Your task to perform on an android device: Search for lg ultragear on target, select the first entry, and add it to the cart. Image 0: 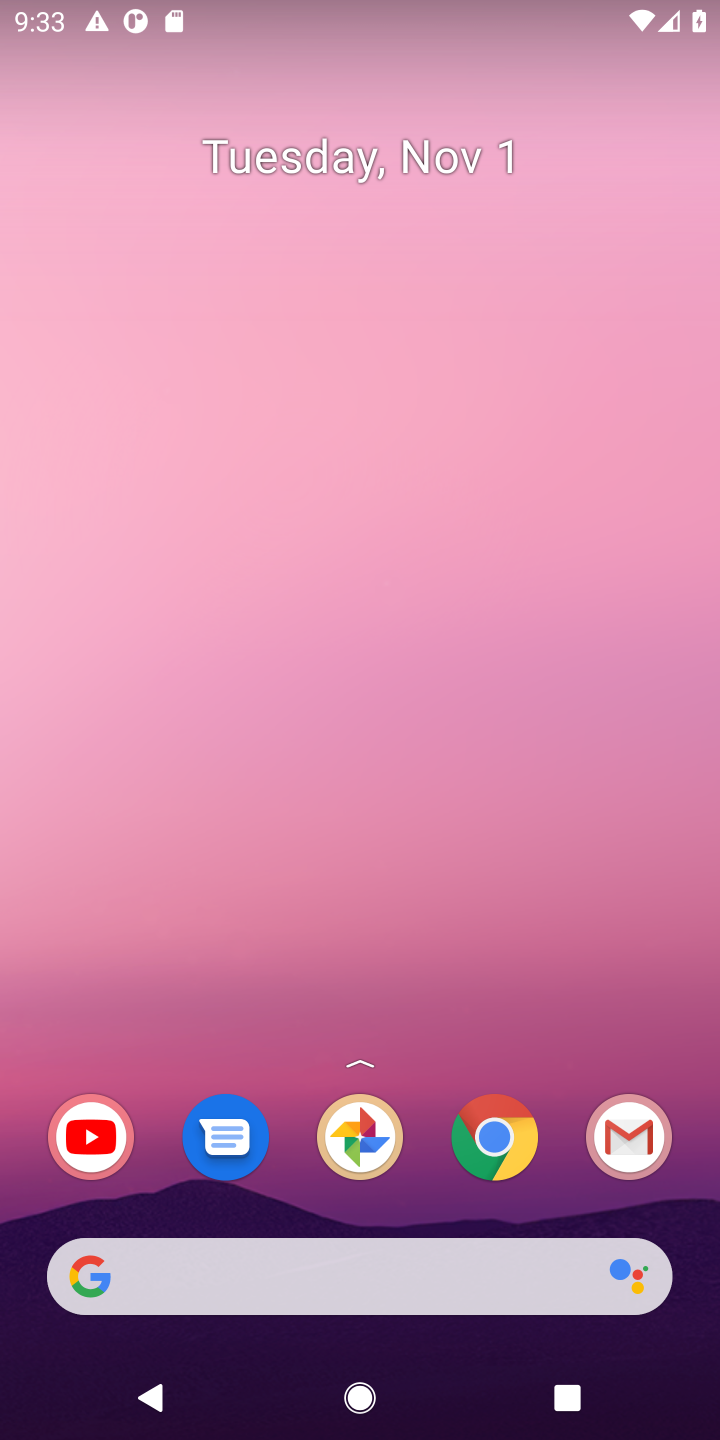
Step 0: click (356, 1276)
Your task to perform on an android device: Search for lg ultragear on target, select the first entry, and add it to the cart. Image 1: 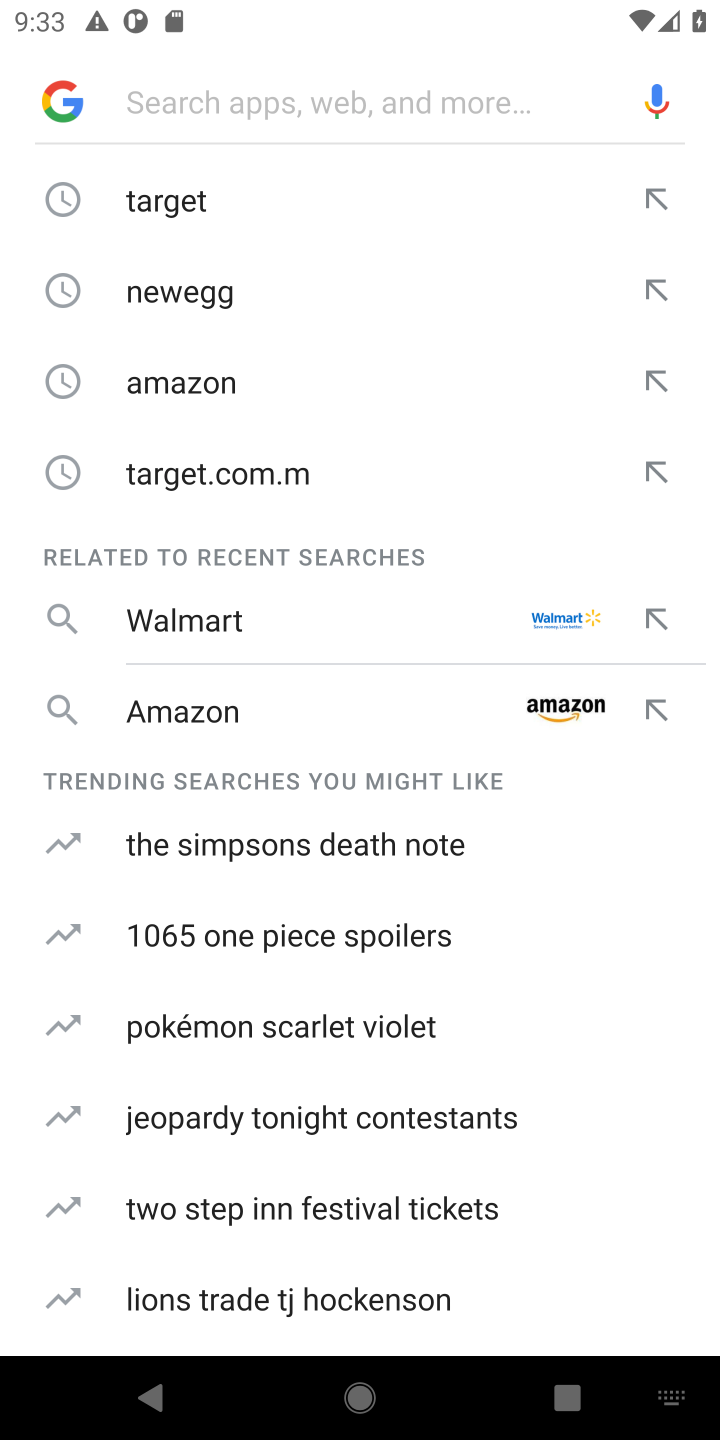
Step 1: click (181, 216)
Your task to perform on an android device: Search for lg ultragear on target, select the first entry, and add it to the cart. Image 2: 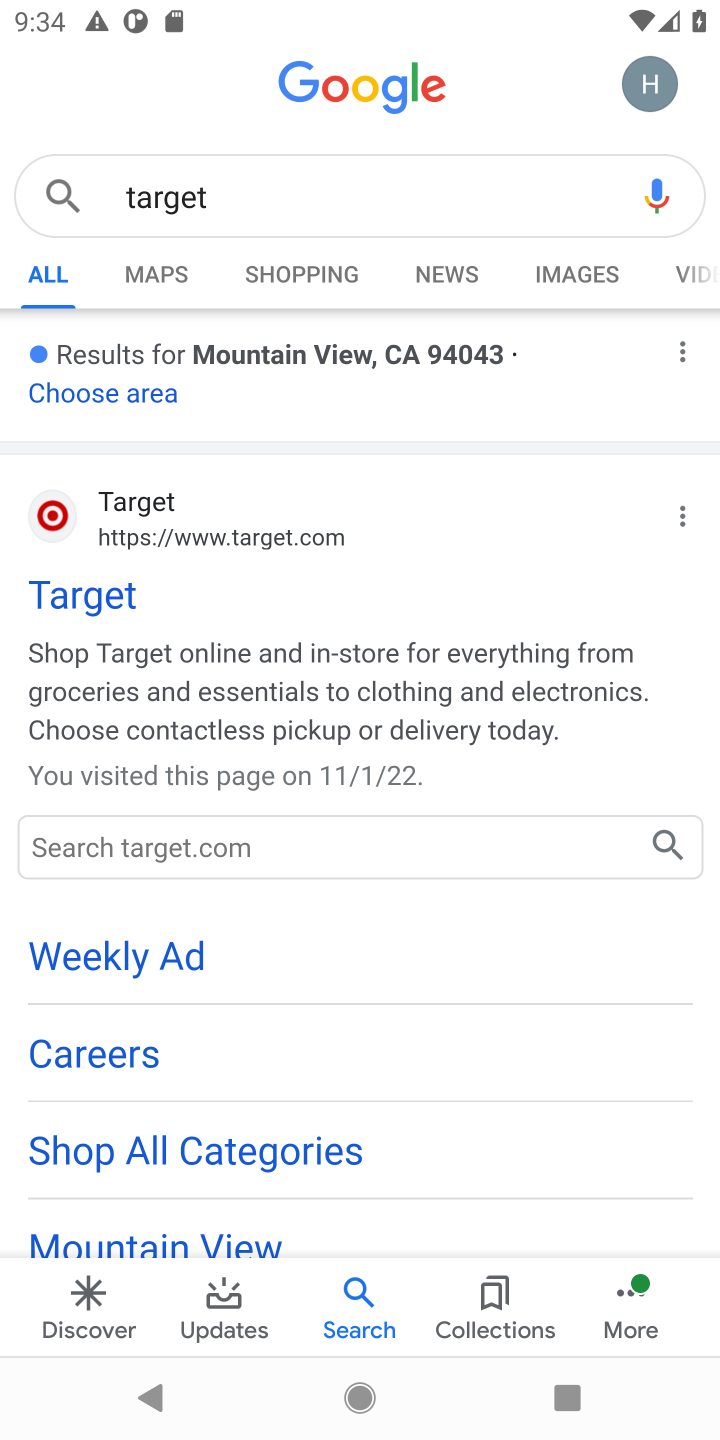
Step 2: click (135, 505)
Your task to perform on an android device: Search for lg ultragear on target, select the first entry, and add it to the cart. Image 3: 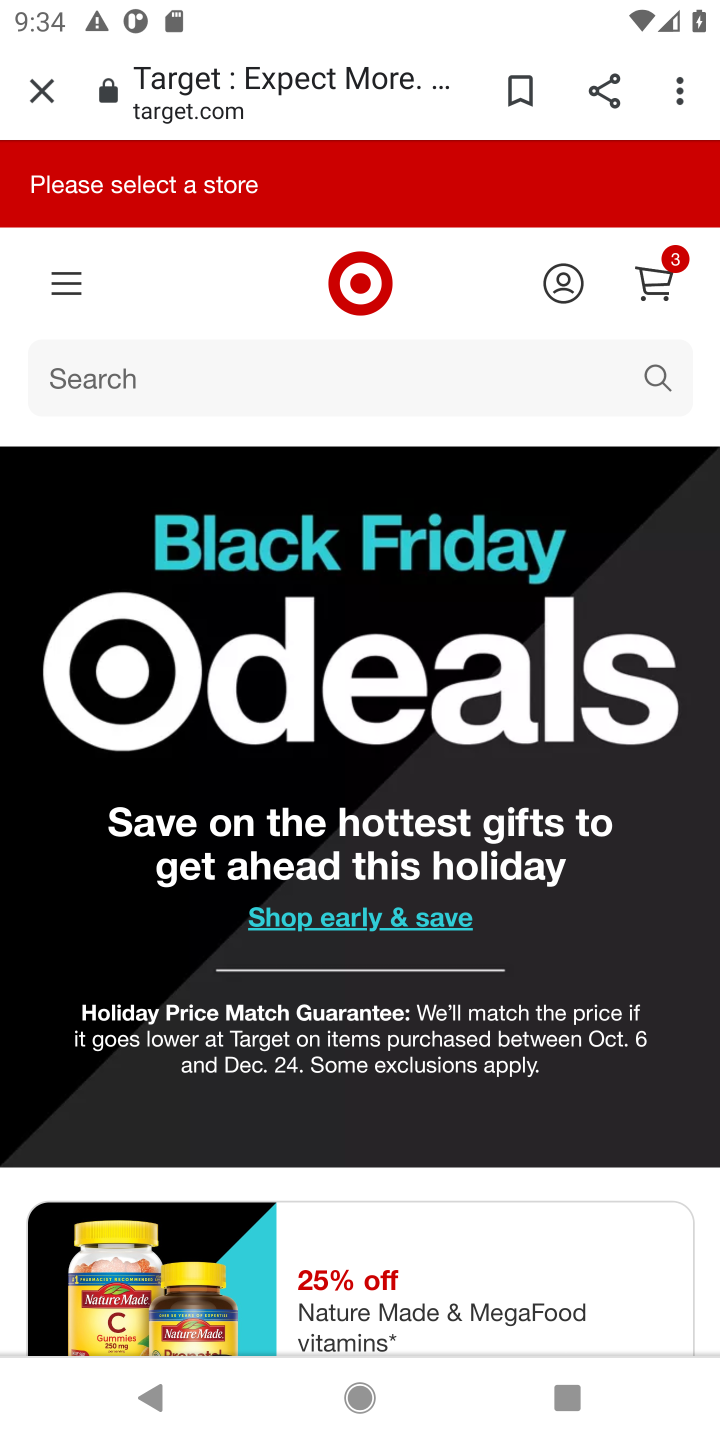
Step 3: click (277, 378)
Your task to perform on an android device: Search for lg ultragear on target, select the first entry, and add it to the cart. Image 4: 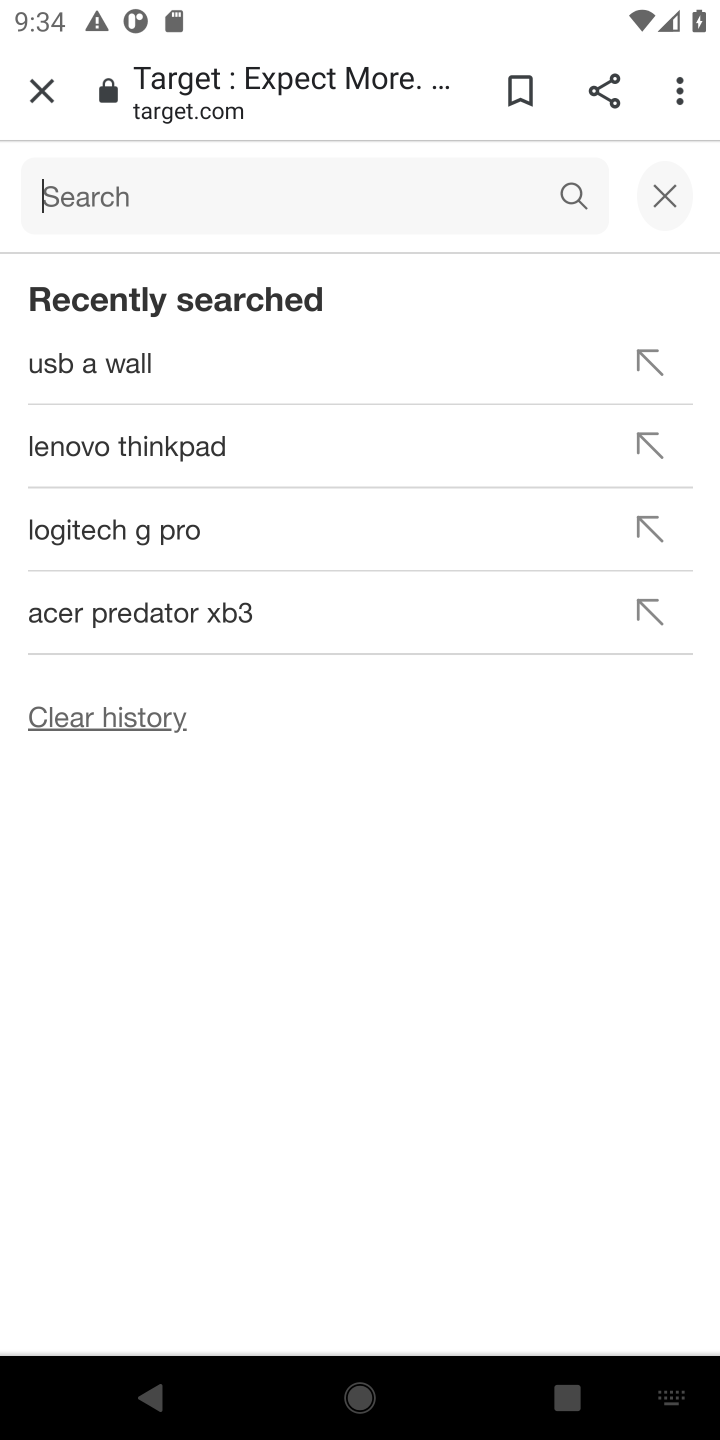
Step 4: type "lg ultragear"
Your task to perform on an android device: Search for lg ultragear on target, select the first entry, and add it to the cart. Image 5: 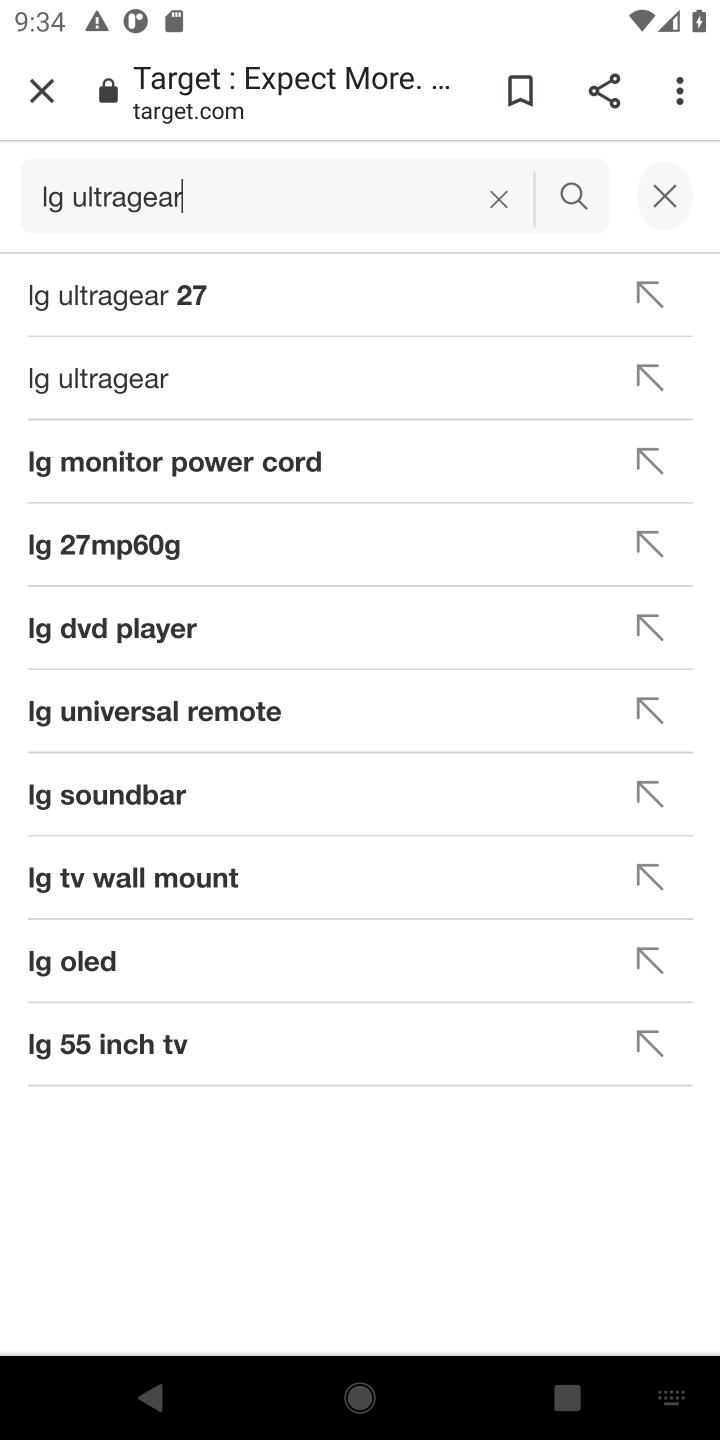
Step 5: click (116, 364)
Your task to perform on an android device: Search for lg ultragear on target, select the first entry, and add it to the cart. Image 6: 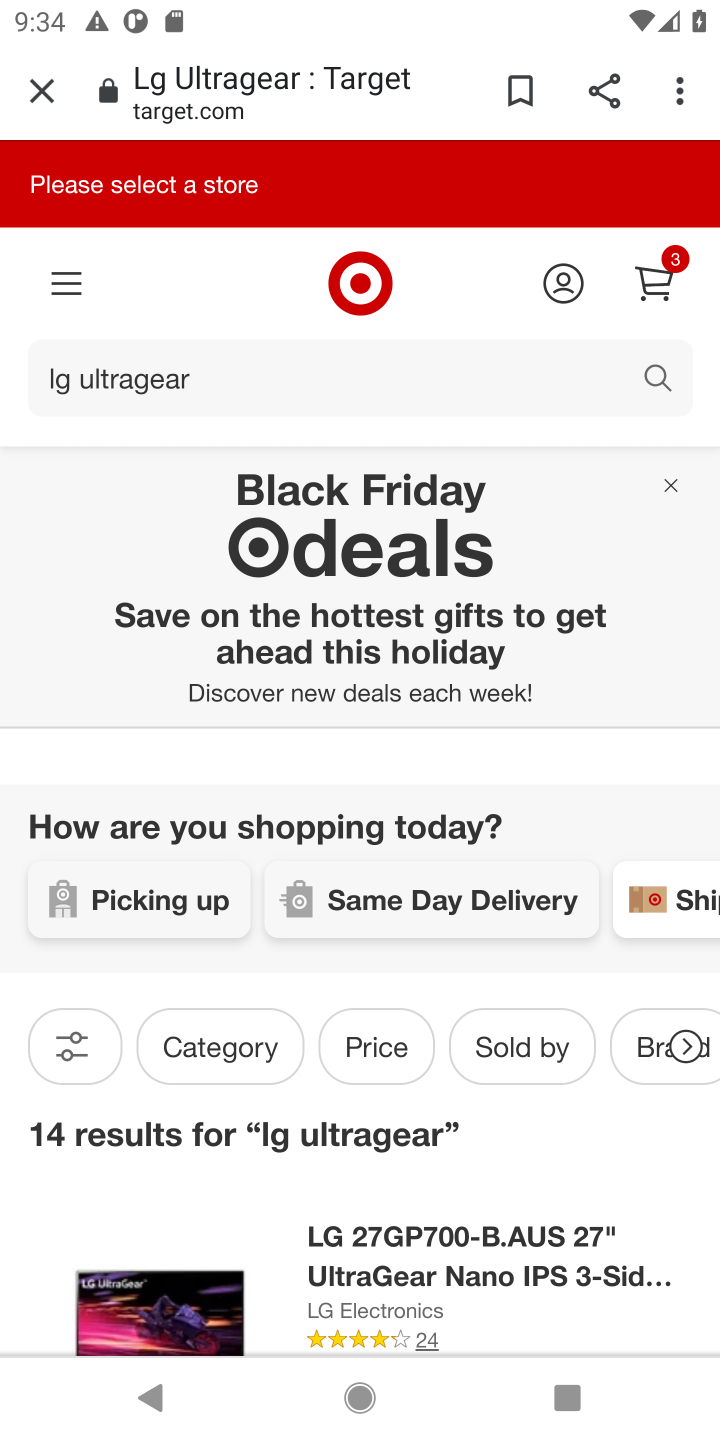
Step 6: drag from (276, 1041) to (323, 600)
Your task to perform on an android device: Search for lg ultragear on target, select the first entry, and add it to the cart. Image 7: 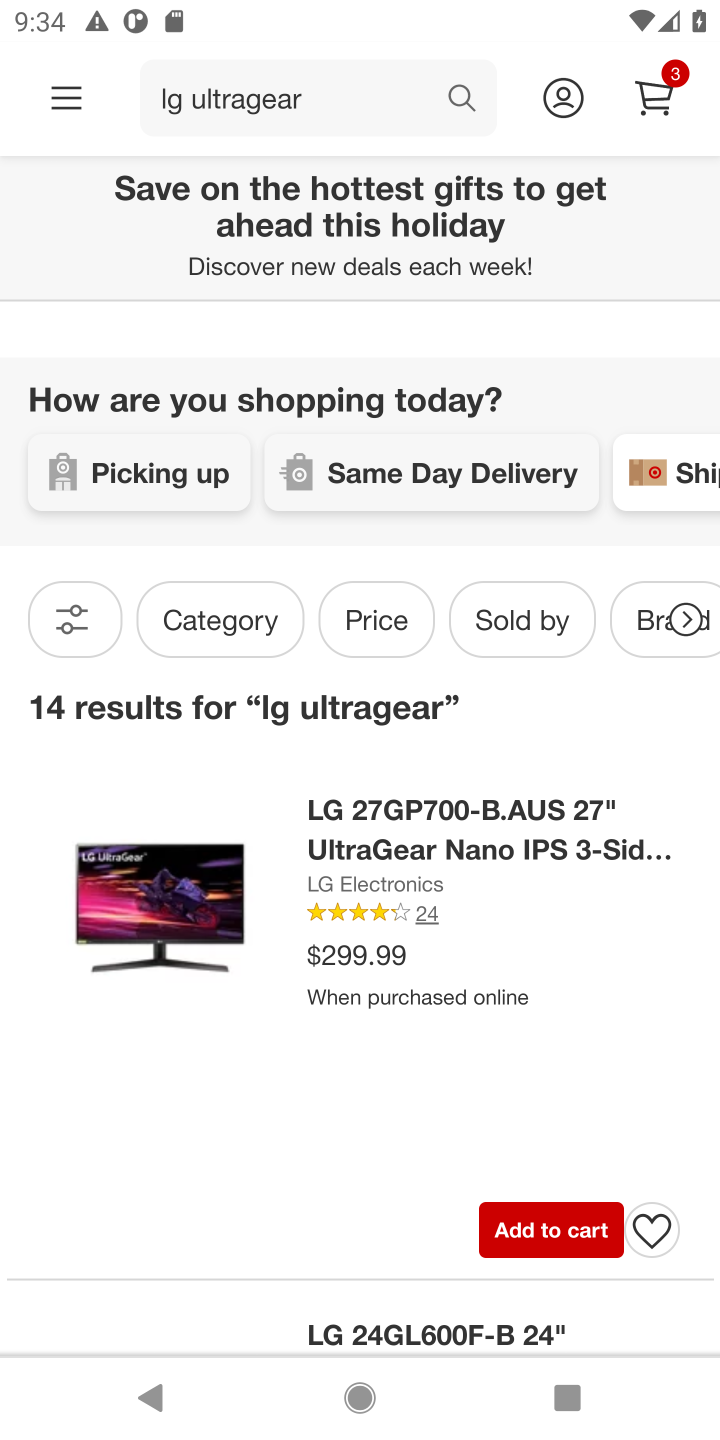
Step 7: click (315, 1260)
Your task to perform on an android device: Search for lg ultragear on target, select the first entry, and add it to the cart. Image 8: 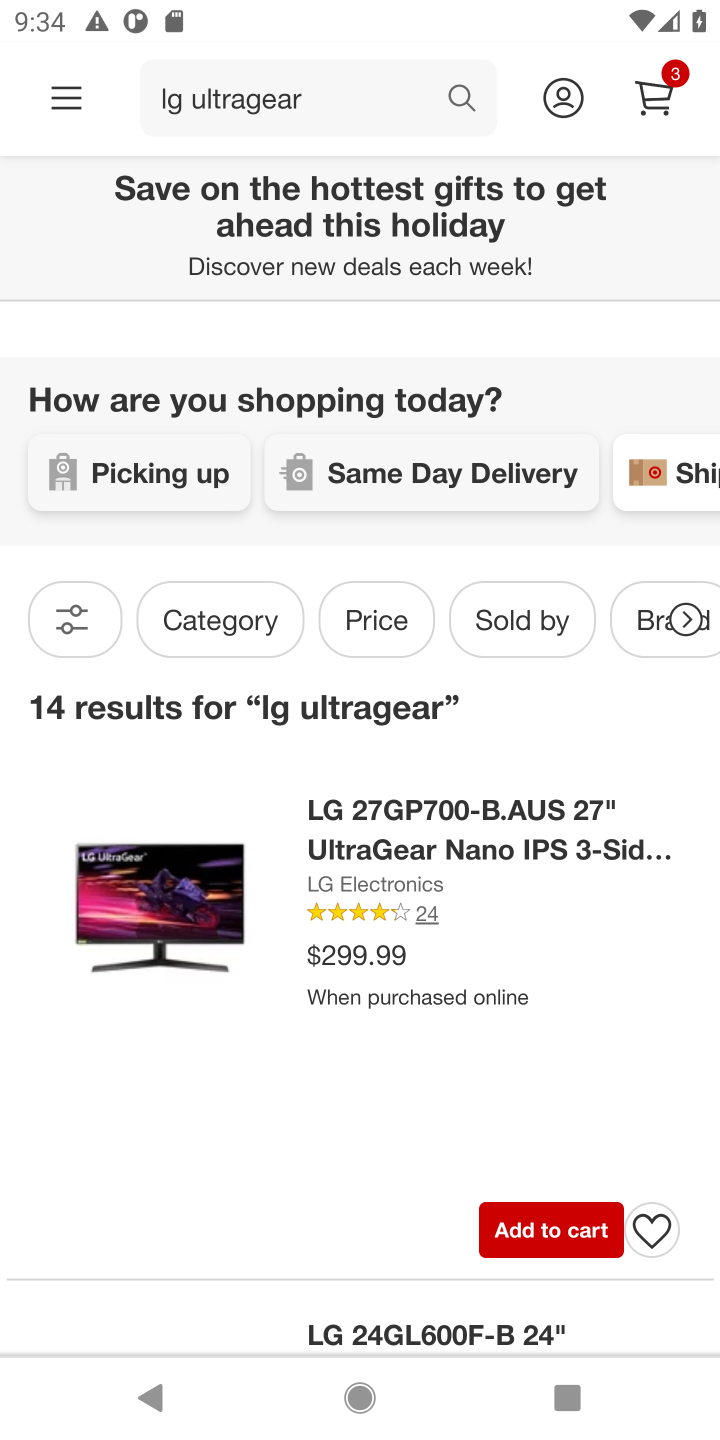
Step 8: click (515, 1227)
Your task to perform on an android device: Search for lg ultragear on target, select the first entry, and add it to the cart. Image 9: 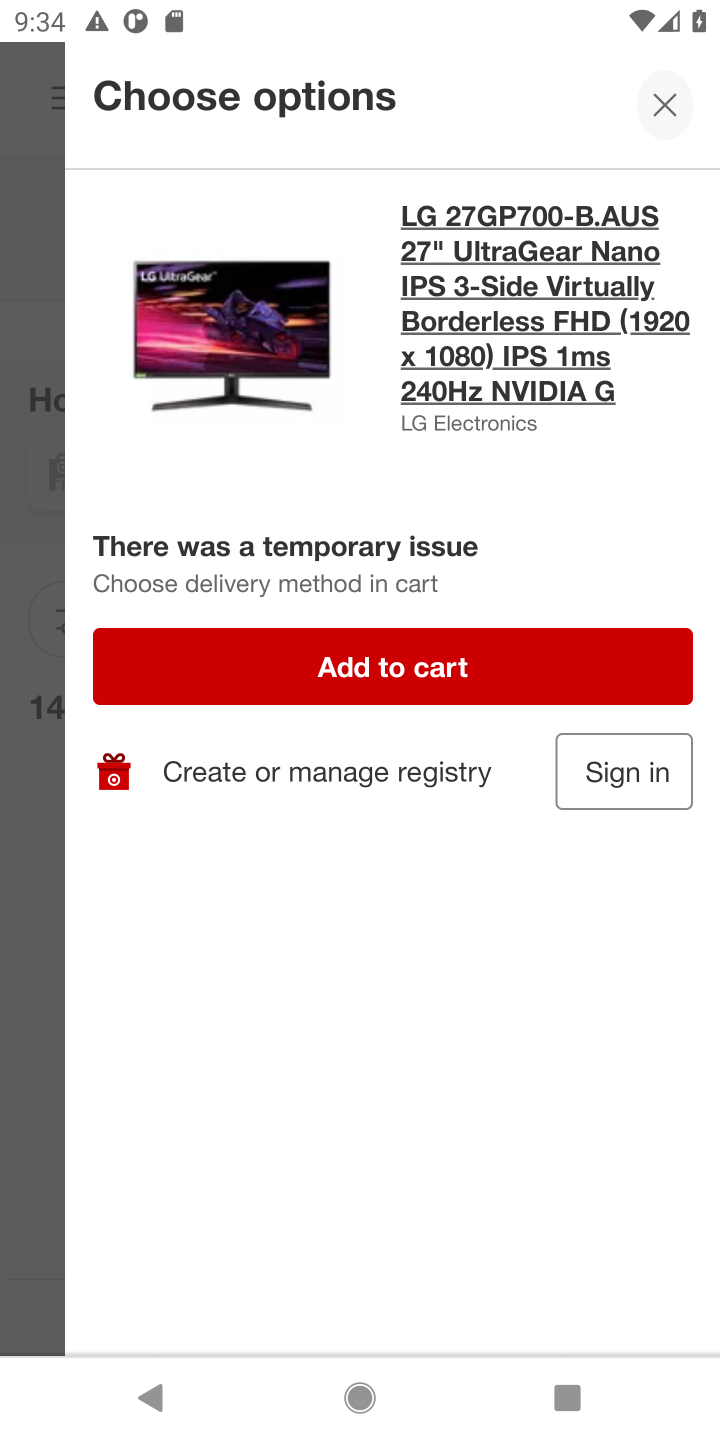
Step 9: click (387, 668)
Your task to perform on an android device: Search for lg ultragear on target, select the first entry, and add it to the cart. Image 10: 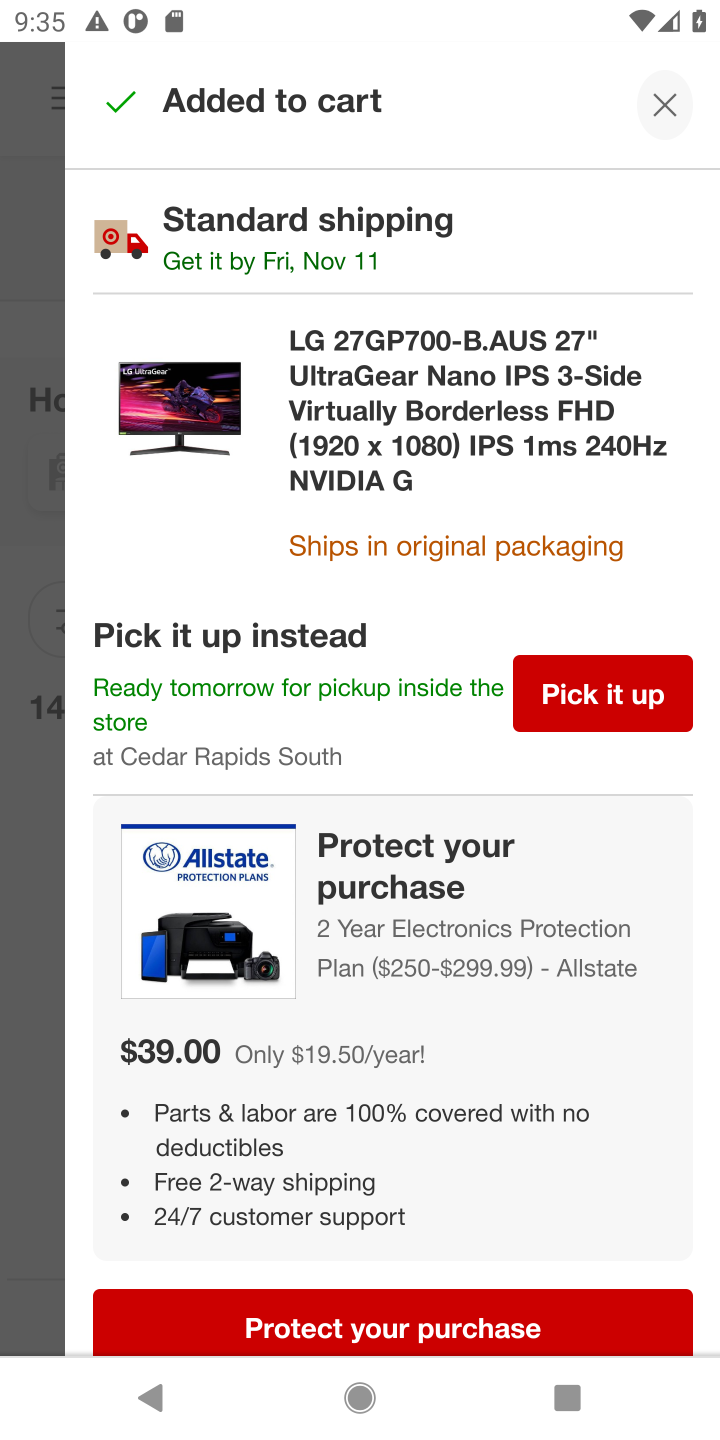
Step 10: task complete